Your task to perform on an android device: Open Android settings Image 0: 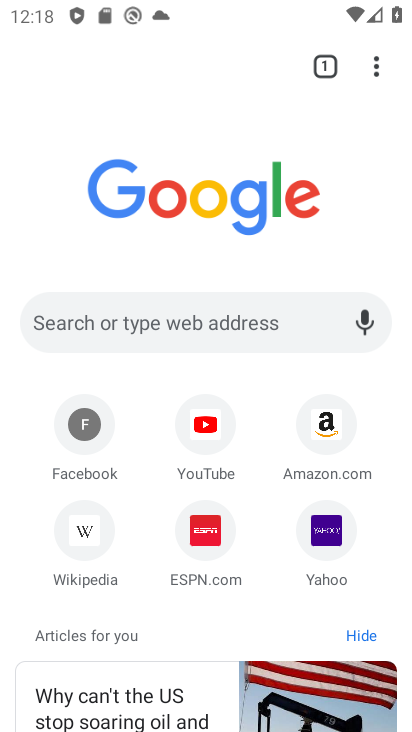
Step 0: press home button
Your task to perform on an android device: Open Android settings Image 1: 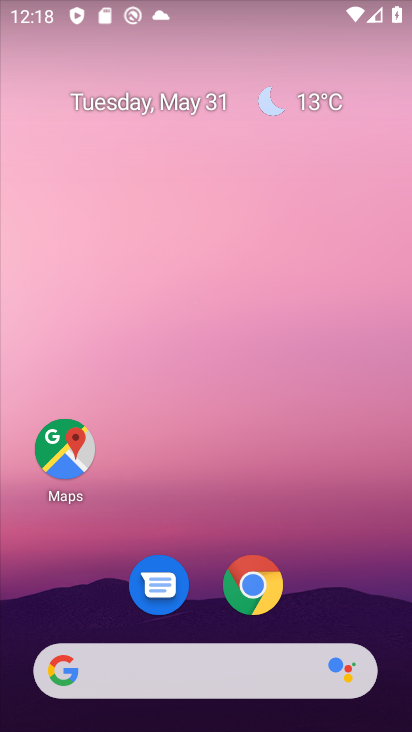
Step 1: drag from (226, 499) to (243, 40)
Your task to perform on an android device: Open Android settings Image 2: 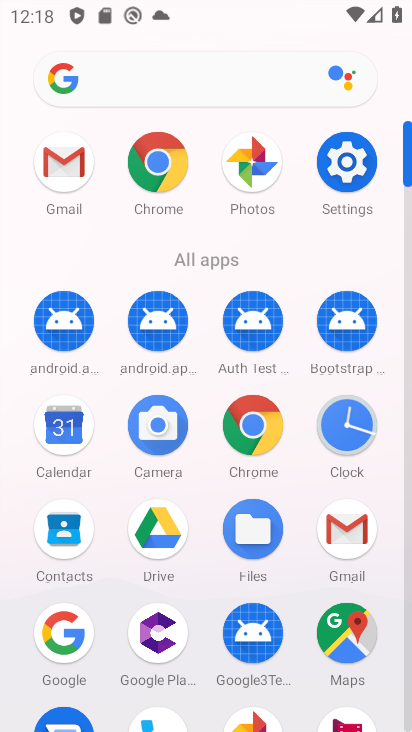
Step 2: click (344, 169)
Your task to perform on an android device: Open Android settings Image 3: 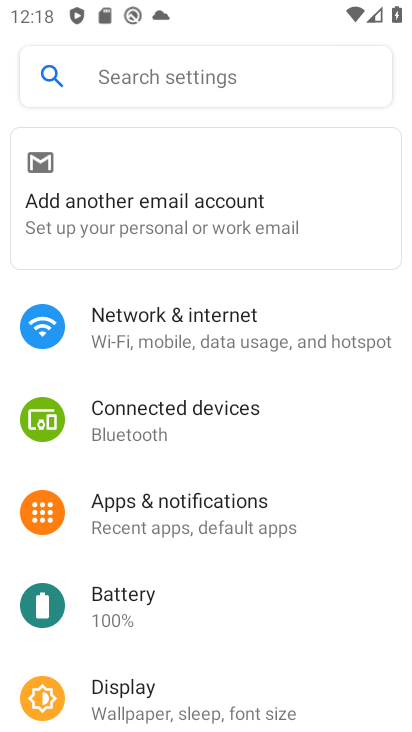
Step 3: drag from (220, 586) to (318, 0)
Your task to perform on an android device: Open Android settings Image 4: 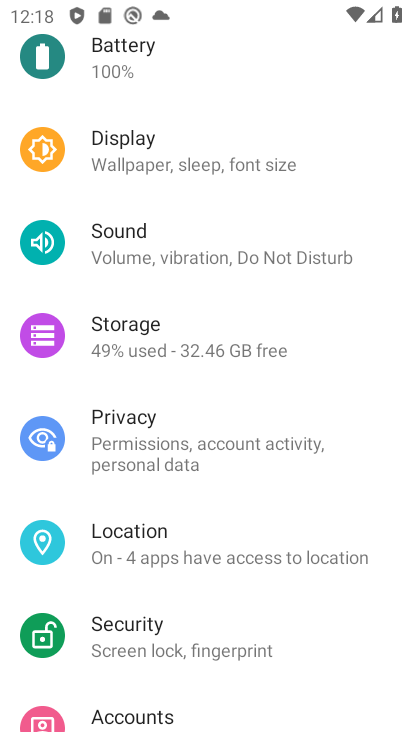
Step 4: drag from (242, 519) to (252, 69)
Your task to perform on an android device: Open Android settings Image 5: 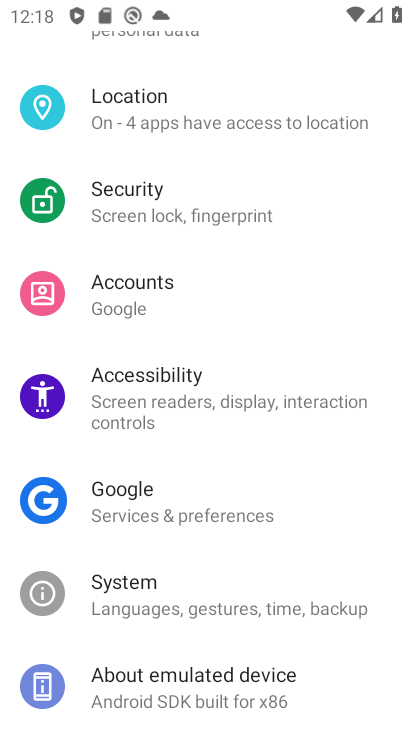
Step 5: drag from (235, 462) to (252, 339)
Your task to perform on an android device: Open Android settings Image 6: 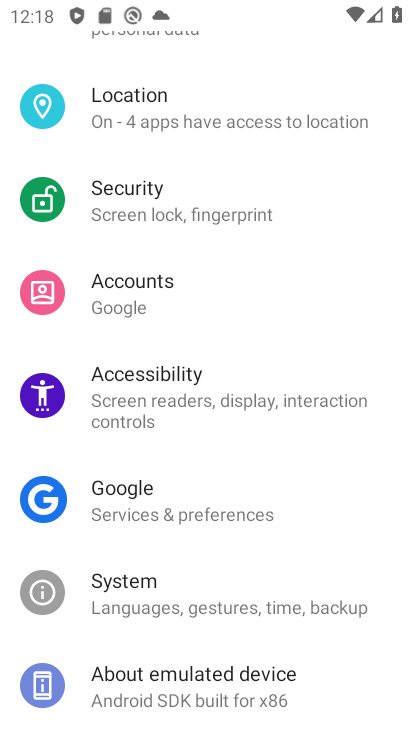
Step 6: click (211, 680)
Your task to perform on an android device: Open Android settings Image 7: 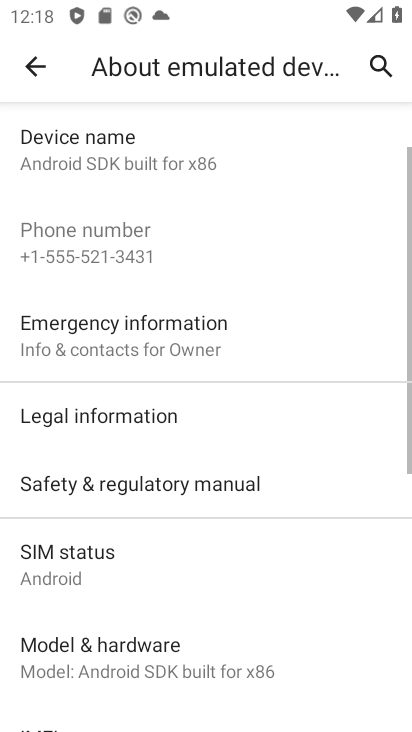
Step 7: task complete